Your task to perform on an android device: open a bookmark in the chrome app Image 0: 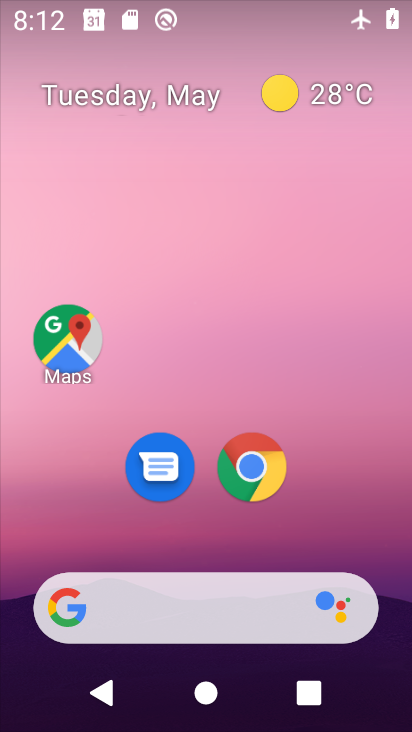
Step 0: click (261, 460)
Your task to perform on an android device: open a bookmark in the chrome app Image 1: 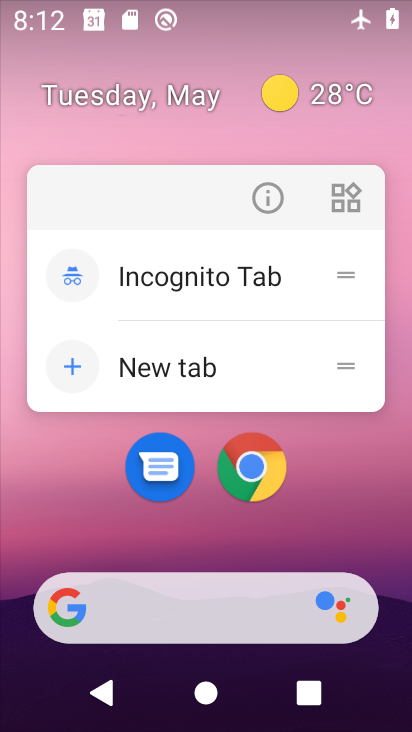
Step 1: click (255, 461)
Your task to perform on an android device: open a bookmark in the chrome app Image 2: 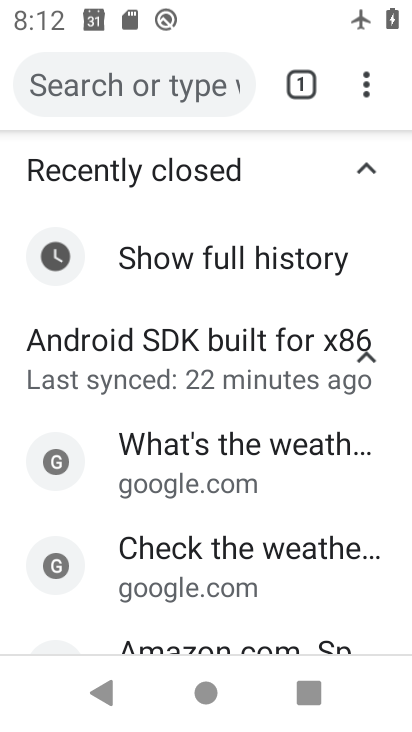
Step 2: drag from (331, 106) to (327, 406)
Your task to perform on an android device: open a bookmark in the chrome app Image 3: 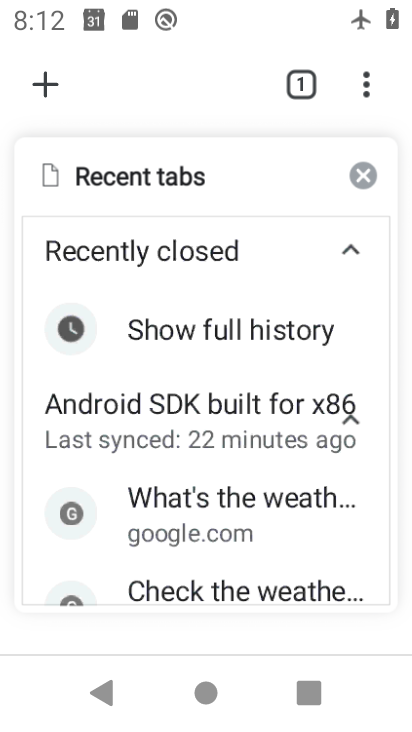
Step 3: click (362, 178)
Your task to perform on an android device: open a bookmark in the chrome app Image 4: 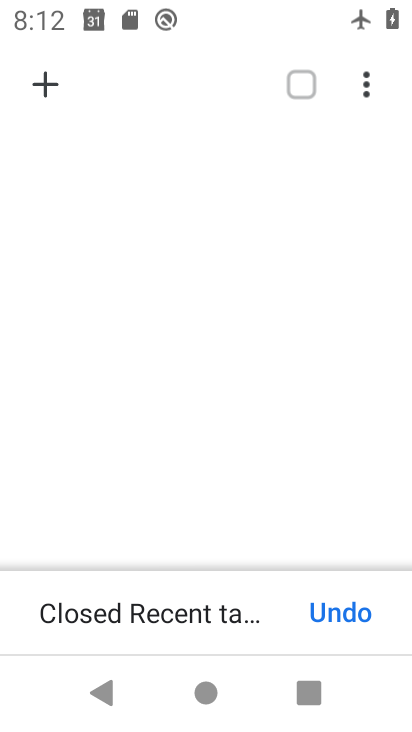
Step 4: click (43, 78)
Your task to perform on an android device: open a bookmark in the chrome app Image 5: 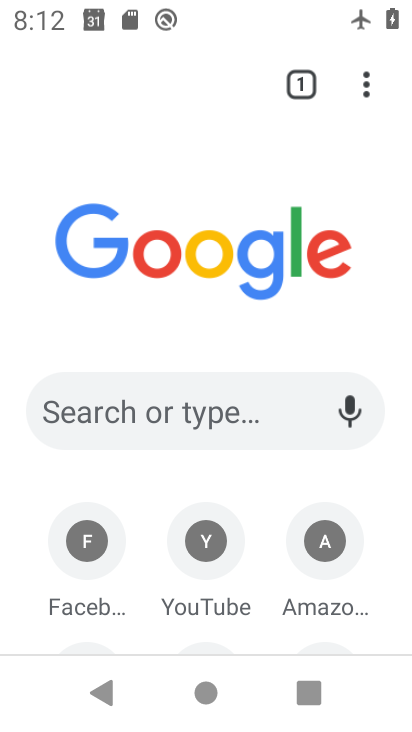
Step 5: click (361, 84)
Your task to perform on an android device: open a bookmark in the chrome app Image 6: 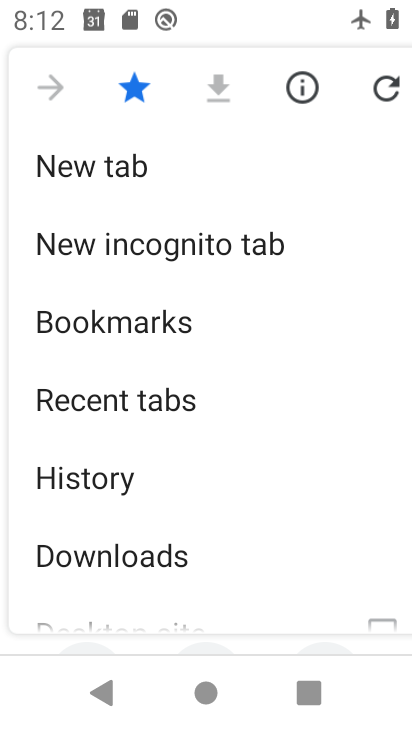
Step 6: drag from (235, 544) to (238, 325)
Your task to perform on an android device: open a bookmark in the chrome app Image 7: 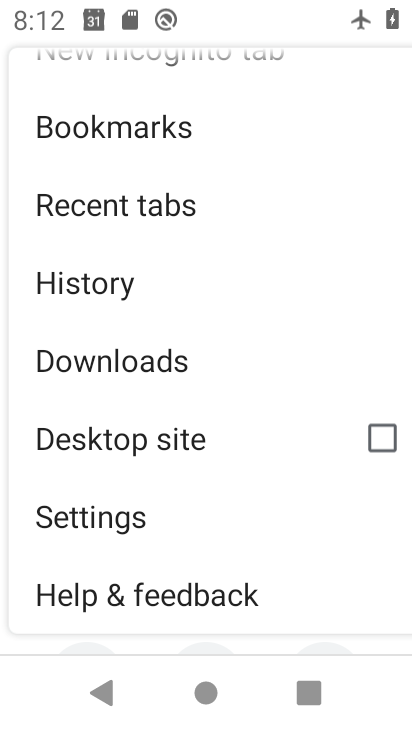
Step 7: click (81, 112)
Your task to perform on an android device: open a bookmark in the chrome app Image 8: 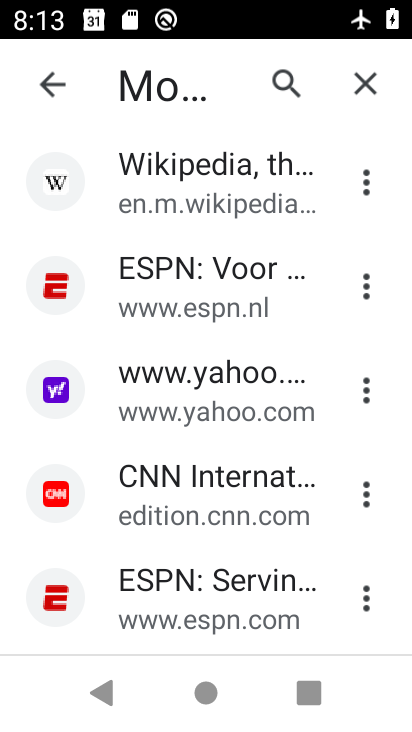
Step 8: click (161, 366)
Your task to perform on an android device: open a bookmark in the chrome app Image 9: 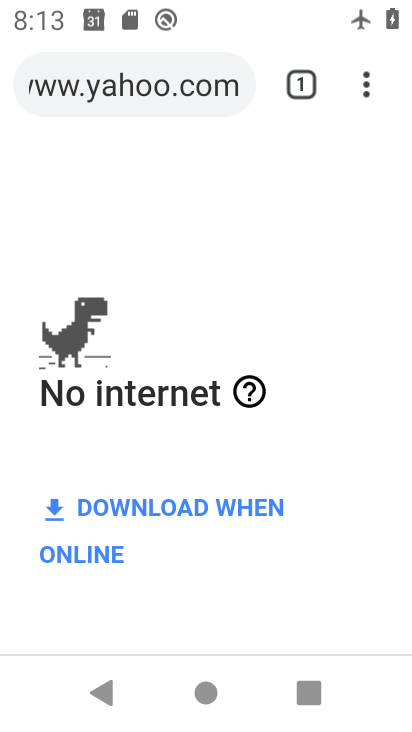
Step 9: task complete